Your task to perform on an android device: Open Google Chrome Image 0: 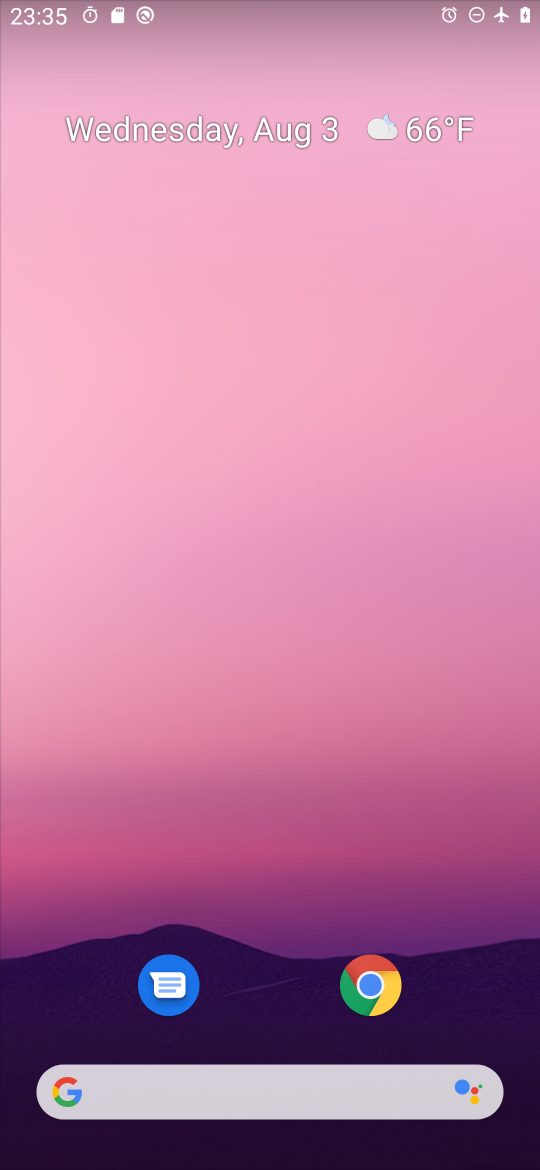
Step 0: click (378, 973)
Your task to perform on an android device: Open Google Chrome Image 1: 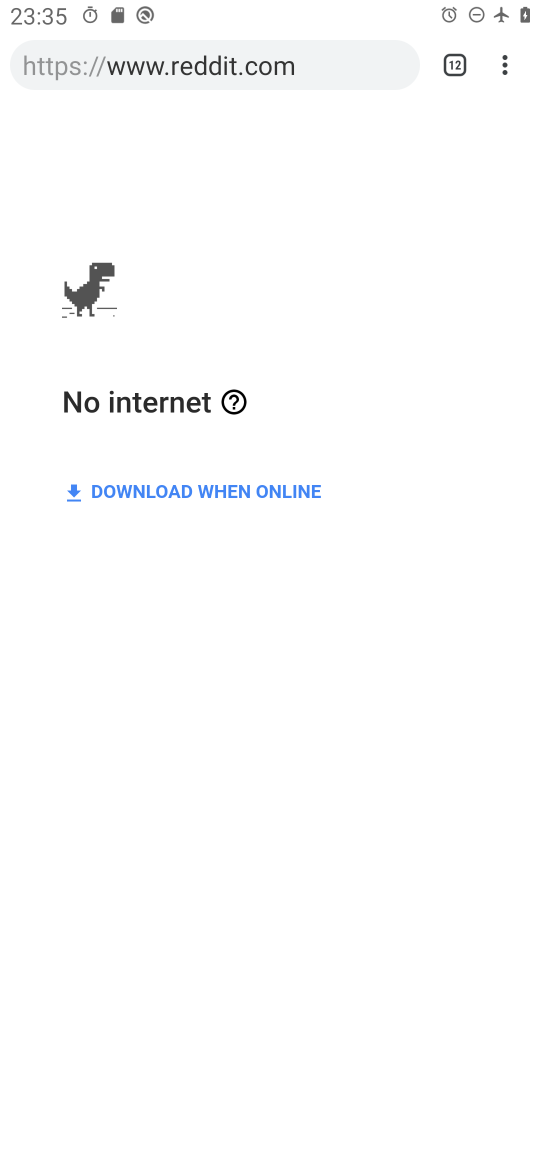
Step 1: task complete